Your task to perform on an android device: manage bookmarks in the chrome app Image 0: 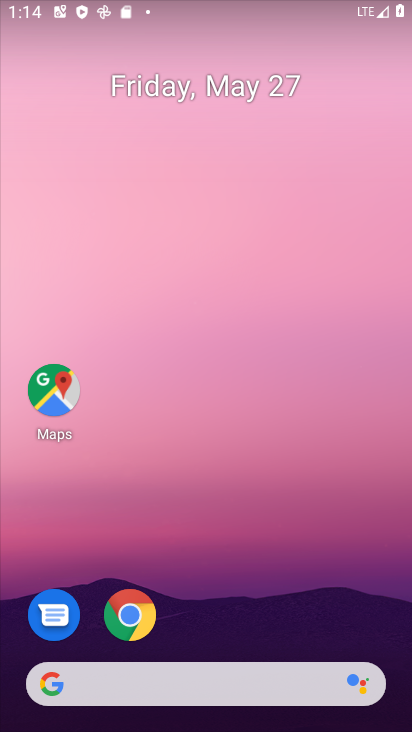
Step 0: drag from (288, 663) to (309, 124)
Your task to perform on an android device: manage bookmarks in the chrome app Image 1: 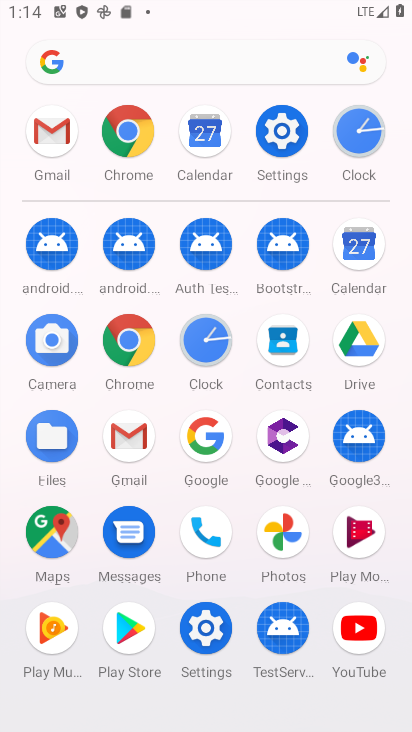
Step 1: click (131, 354)
Your task to perform on an android device: manage bookmarks in the chrome app Image 2: 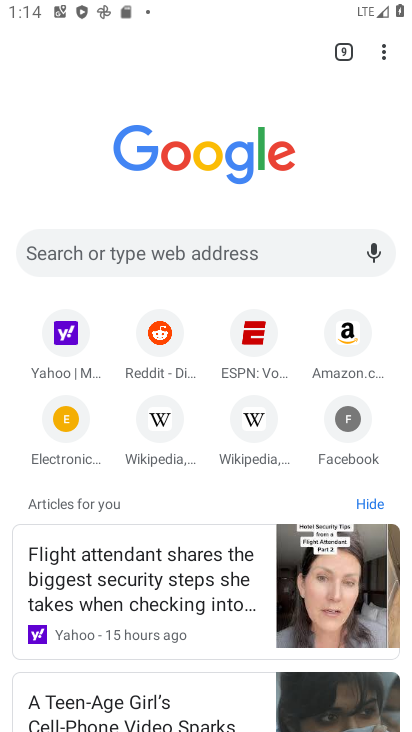
Step 2: task complete